Your task to perform on an android device: turn notification dots on Image 0: 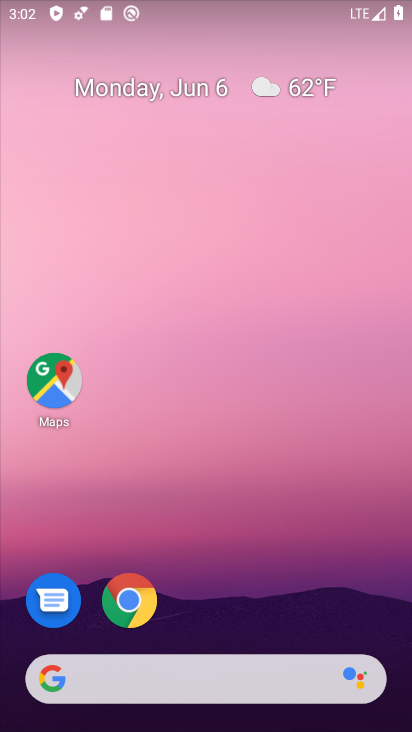
Step 0: drag from (244, 570) to (221, 54)
Your task to perform on an android device: turn notification dots on Image 1: 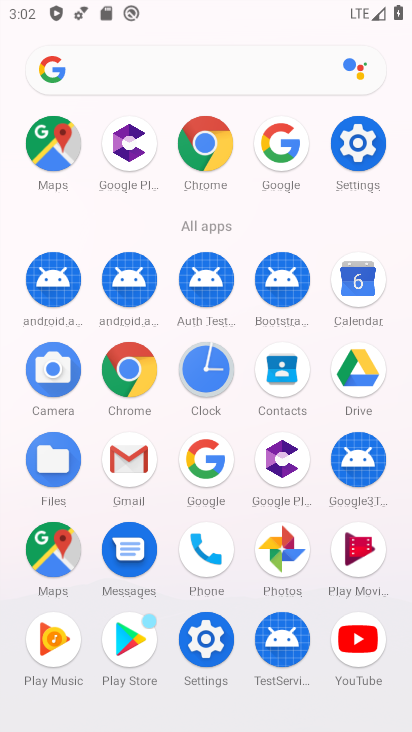
Step 1: click (360, 142)
Your task to perform on an android device: turn notification dots on Image 2: 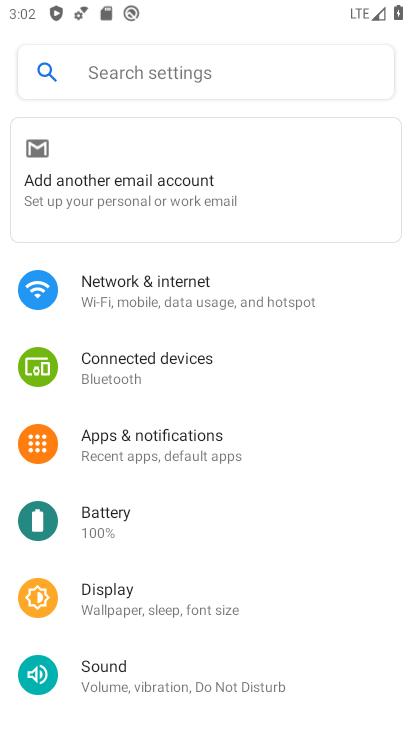
Step 2: click (140, 443)
Your task to perform on an android device: turn notification dots on Image 3: 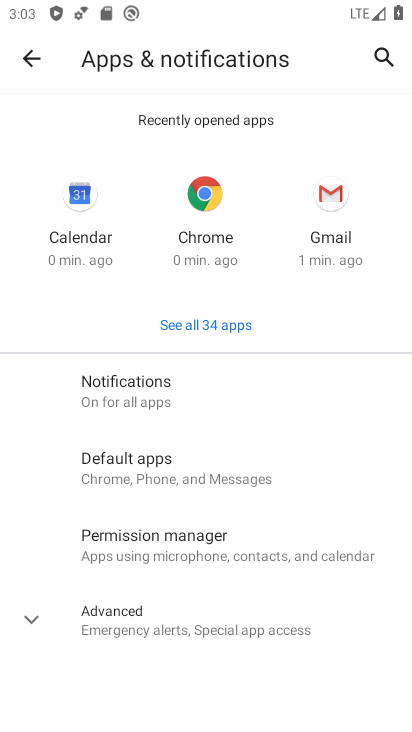
Step 3: click (133, 393)
Your task to perform on an android device: turn notification dots on Image 4: 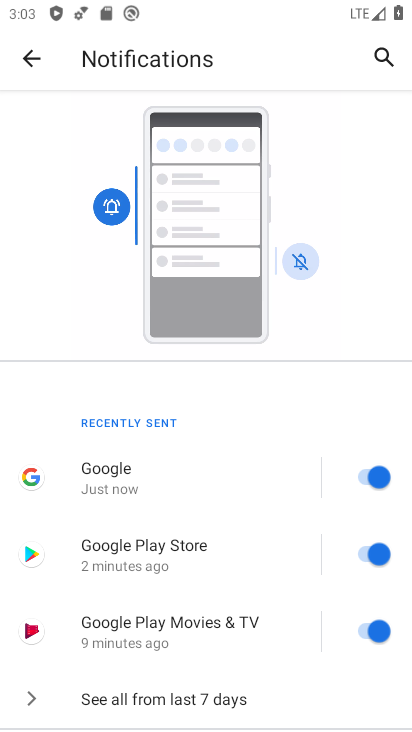
Step 4: click (180, 391)
Your task to perform on an android device: turn notification dots on Image 5: 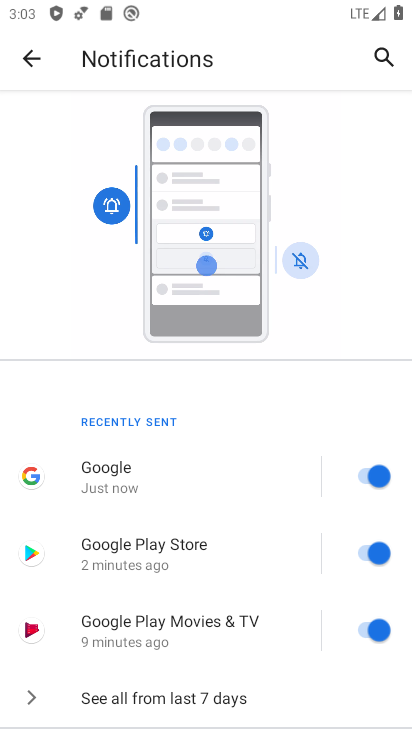
Step 5: drag from (199, 588) to (222, 455)
Your task to perform on an android device: turn notification dots on Image 6: 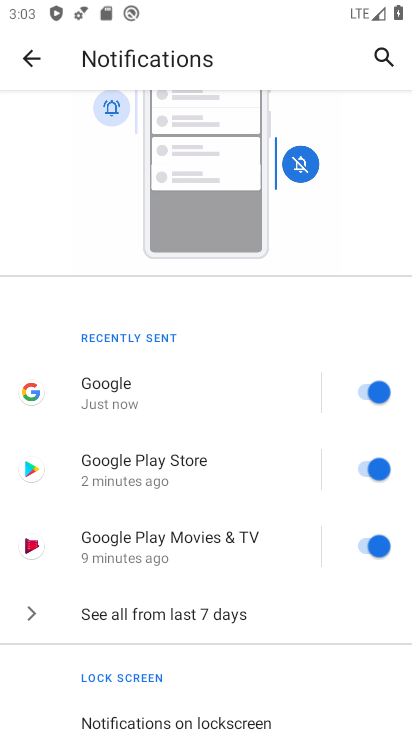
Step 6: drag from (194, 685) to (267, 521)
Your task to perform on an android device: turn notification dots on Image 7: 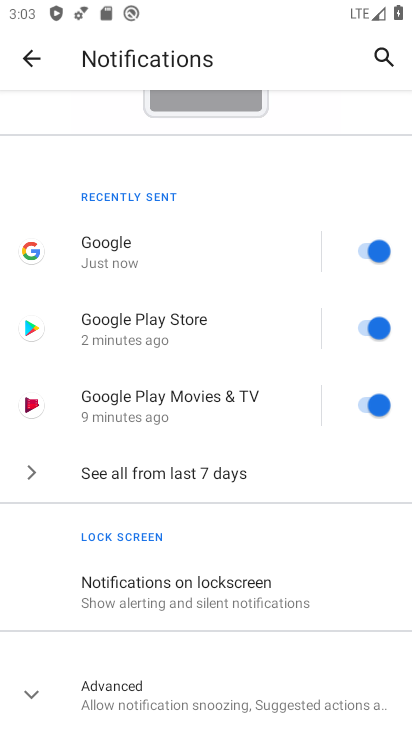
Step 7: click (210, 710)
Your task to perform on an android device: turn notification dots on Image 8: 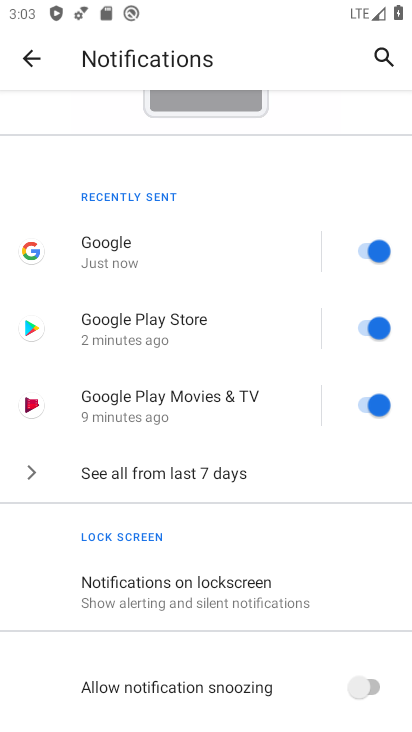
Step 8: task complete